Your task to perform on an android device: Open Youtube and go to the subscriptions tab Image 0: 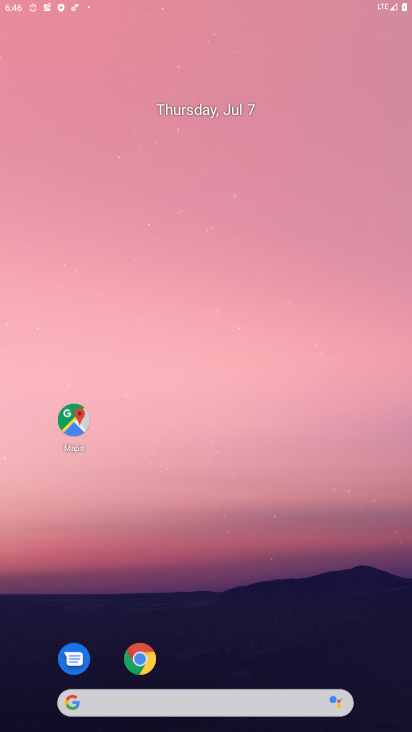
Step 0: drag from (240, 220) to (225, 120)
Your task to perform on an android device: Open Youtube and go to the subscriptions tab Image 1: 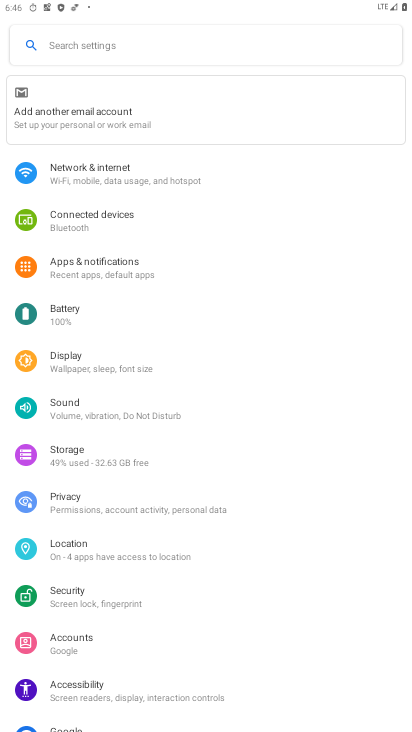
Step 1: press home button
Your task to perform on an android device: Open Youtube and go to the subscriptions tab Image 2: 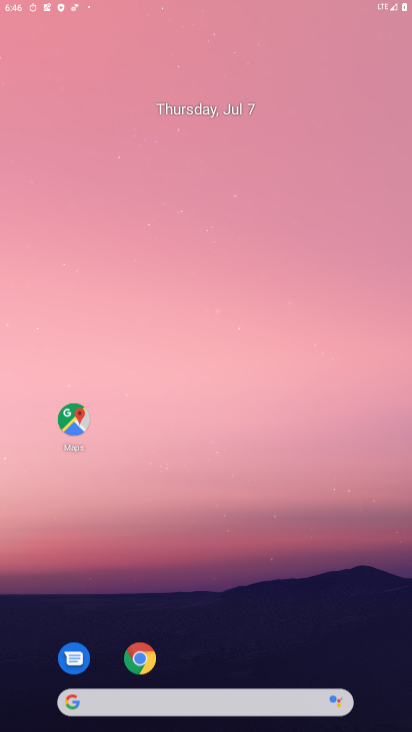
Step 2: drag from (400, 712) to (286, 11)
Your task to perform on an android device: Open Youtube and go to the subscriptions tab Image 3: 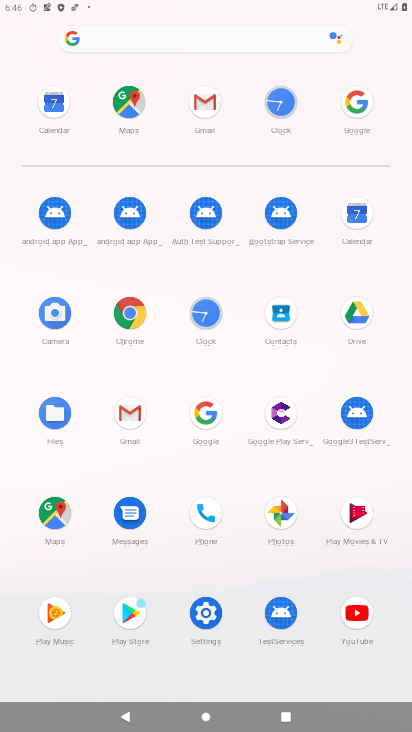
Step 3: click (361, 630)
Your task to perform on an android device: Open Youtube and go to the subscriptions tab Image 4: 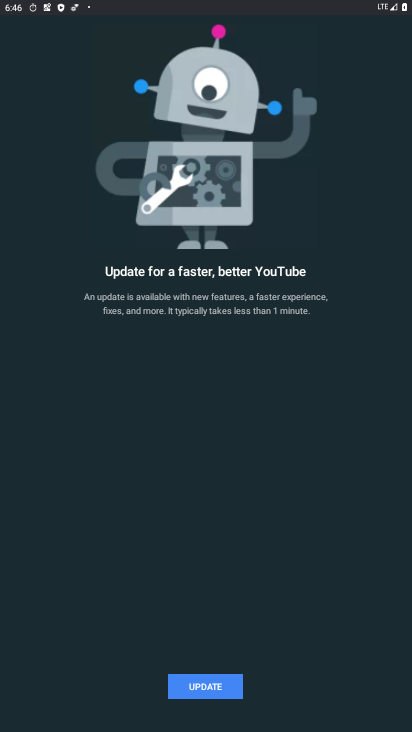
Step 4: drag from (177, 694) to (139, 694)
Your task to perform on an android device: Open Youtube and go to the subscriptions tab Image 5: 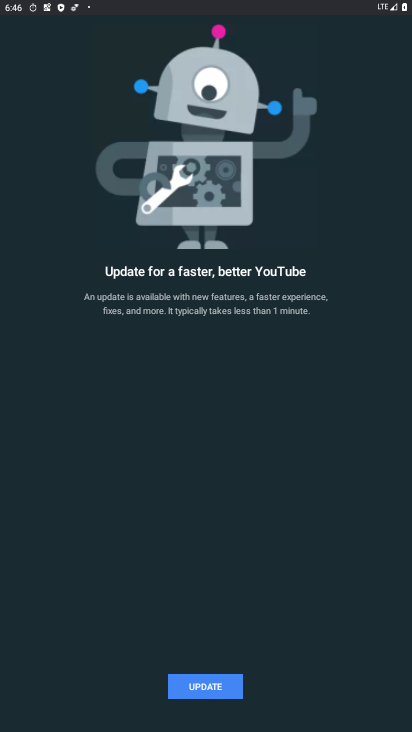
Step 5: click (188, 692)
Your task to perform on an android device: Open Youtube and go to the subscriptions tab Image 6: 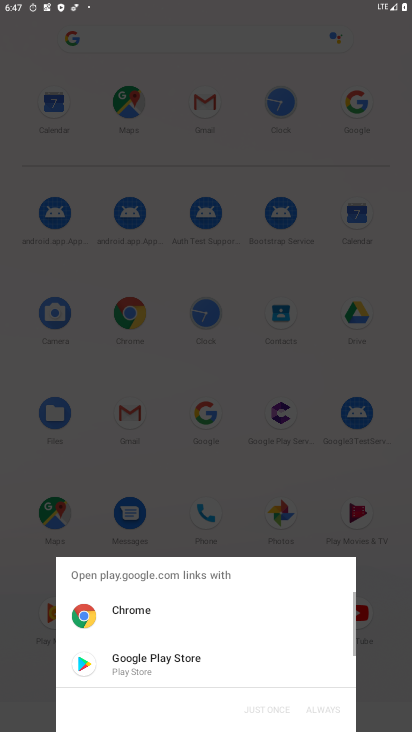
Step 6: click (135, 651)
Your task to perform on an android device: Open Youtube and go to the subscriptions tab Image 7: 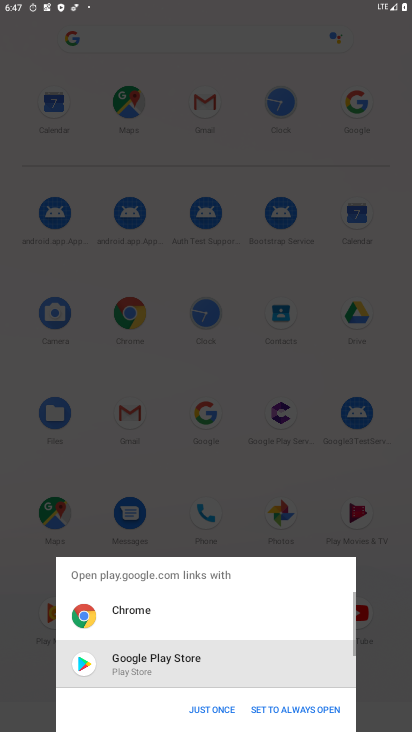
Step 7: click (212, 702)
Your task to perform on an android device: Open Youtube and go to the subscriptions tab Image 8: 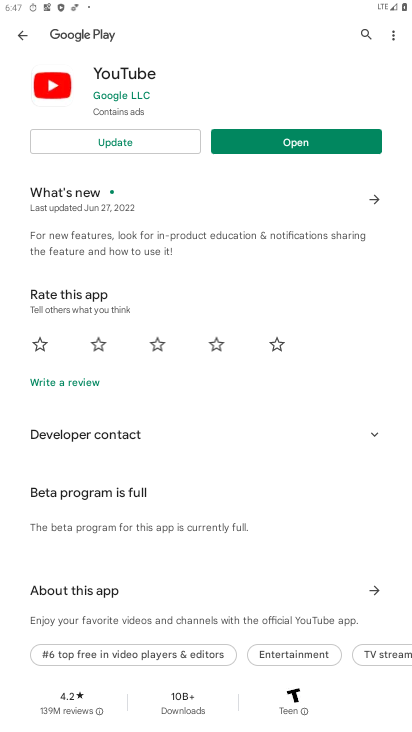
Step 8: click (108, 138)
Your task to perform on an android device: Open Youtube and go to the subscriptions tab Image 9: 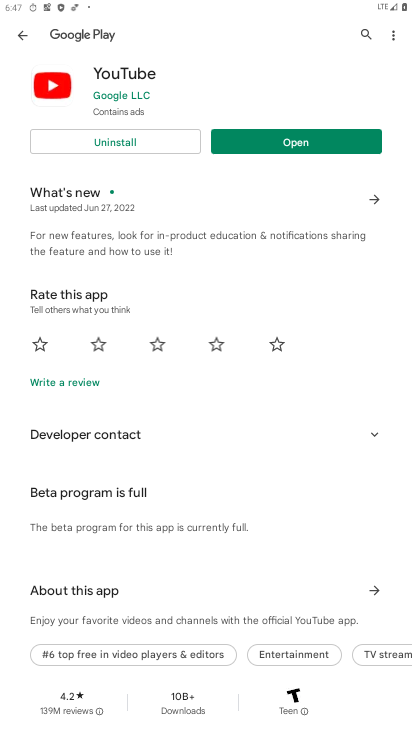
Step 9: click (245, 146)
Your task to perform on an android device: Open Youtube and go to the subscriptions tab Image 10: 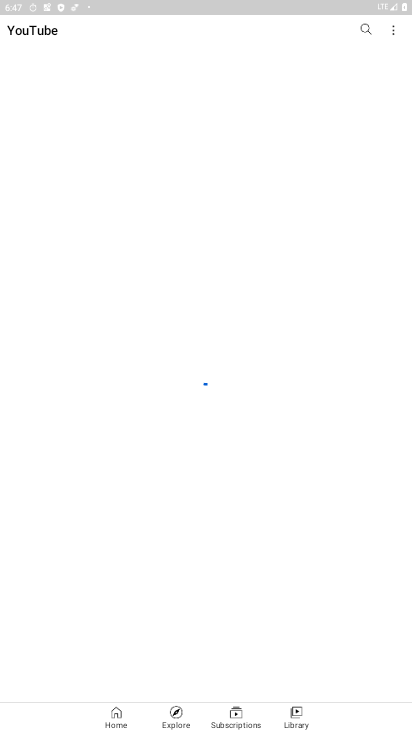
Step 10: click (242, 712)
Your task to perform on an android device: Open Youtube and go to the subscriptions tab Image 11: 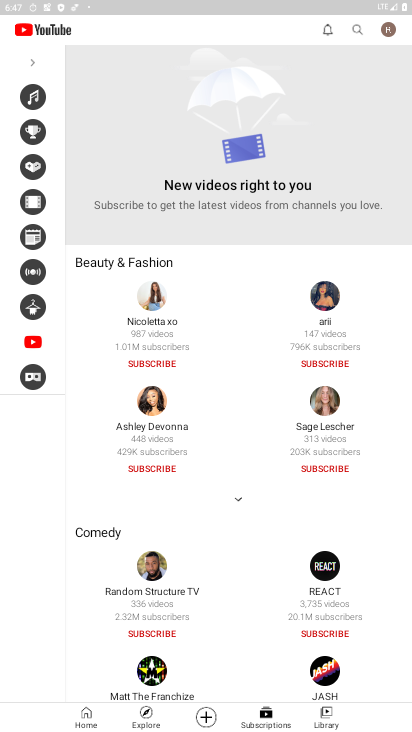
Step 11: task complete